Your task to perform on an android device: Show me productivity apps on the Play Store Image 0: 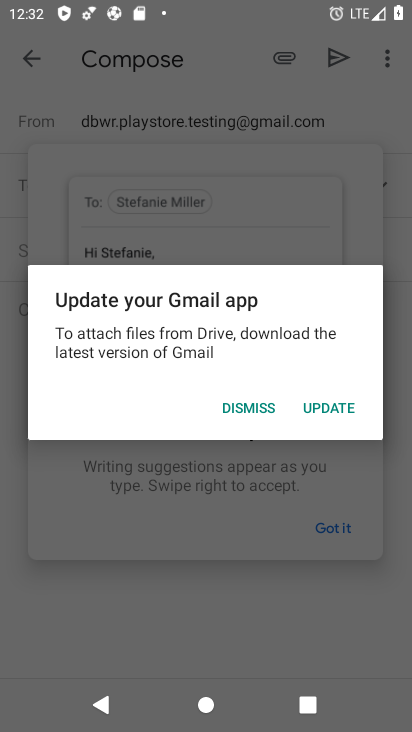
Step 0: press home button
Your task to perform on an android device: Show me productivity apps on the Play Store Image 1: 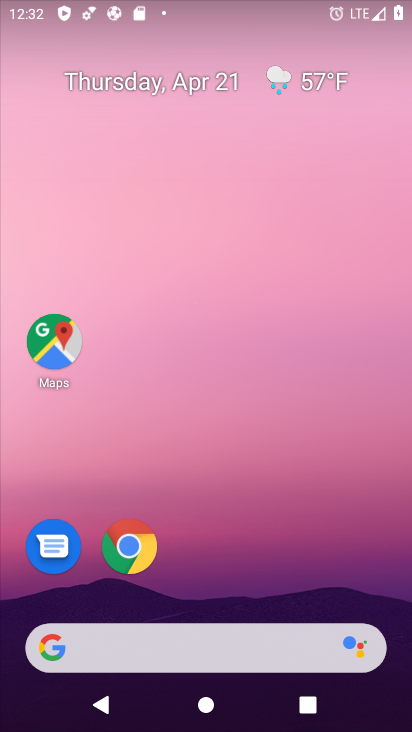
Step 1: drag from (296, 529) to (265, 66)
Your task to perform on an android device: Show me productivity apps on the Play Store Image 2: 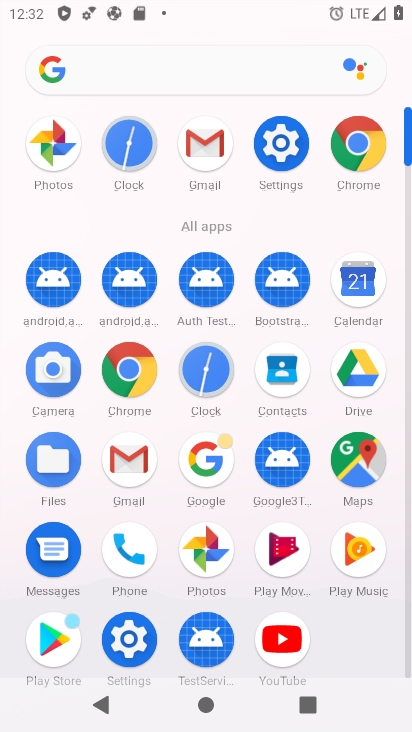
Step 2: click (58, 624)
Your task to perform on an android device: Show me productivity apps on the Play Store Image 3: 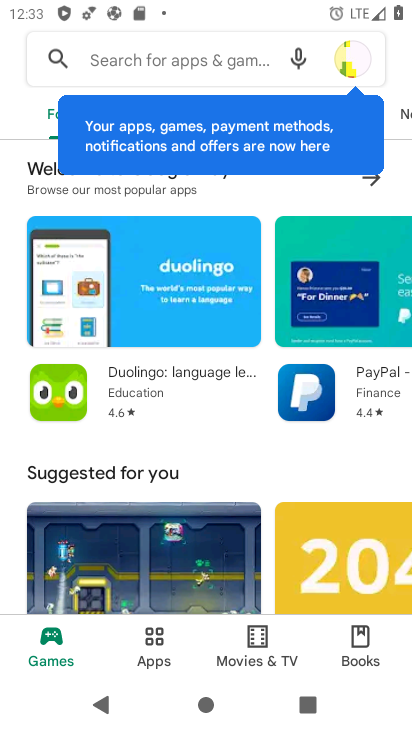
Step 3: click (166, 640)
Your task to perform on an android device: Show me productivity apps on the Play Store Image 4: 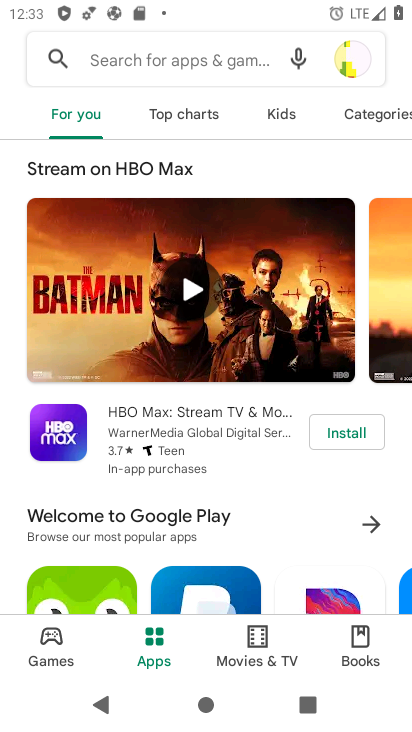
Step 4: drag from (374, 122) to (50, 145)
Your task to perform on an android device: Show me productivity apps on the Play Store Image 5: 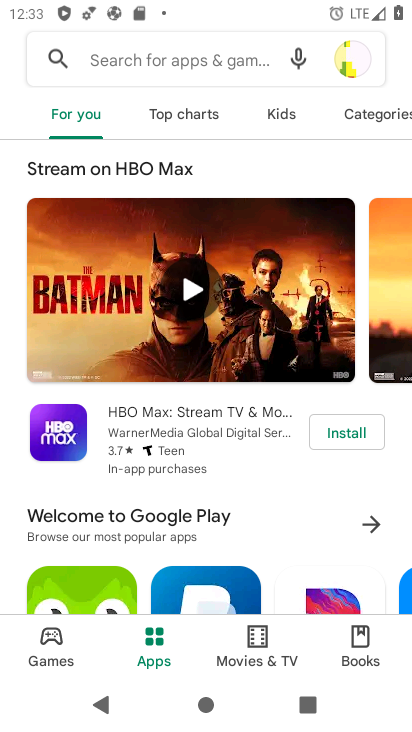
Step 5: click (360, 113)
Your task to perform on an android device: Show me productivity apps on the Play Store Image 6: 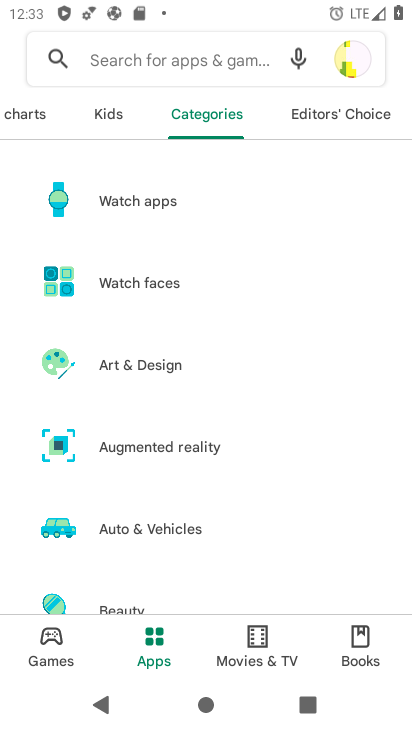
Step 6: drag from (229, 590) to (202, 152)
Your task to perform on an android device: Show me productivity apps on the Play Store Image 7: 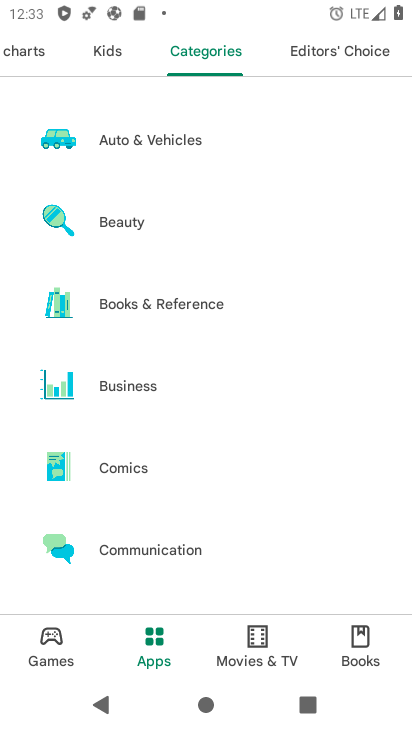
Step 7: drag from (173, 359) to (240, 95)
Your task to perform on an android device: Show me productivity apps on the Play Store Image 8: 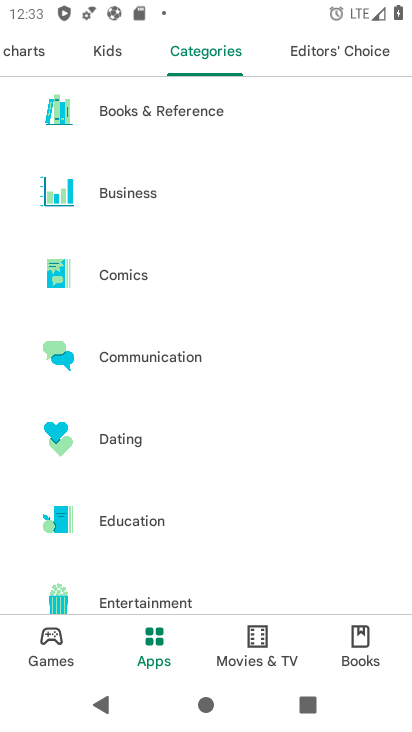
Step 8: drag from (197, 580) to (177, 51)
Your task to perform on an android device: Show me productivity apps on the Play Store Image 9: 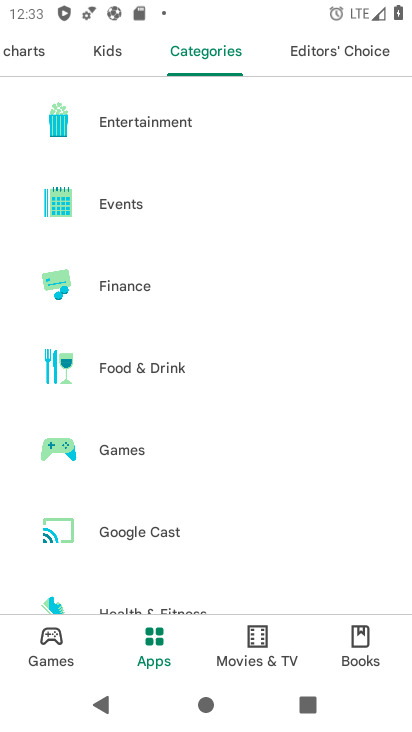
Step 9: drag from (217, 570) to (213, 56)
Your task to perform on an android device: Show me productivity apps on the Play Store Image 10: 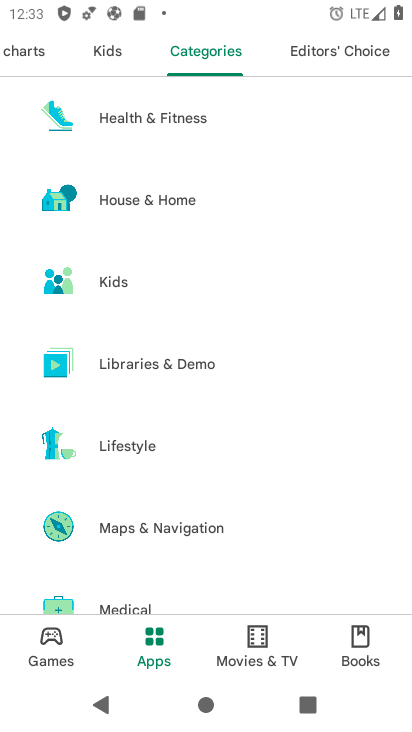
Step 10: drag from (196, 557) to (249, 89)
Your task to perform on an android device: Show me productivity apps on the Play Store Image 11: 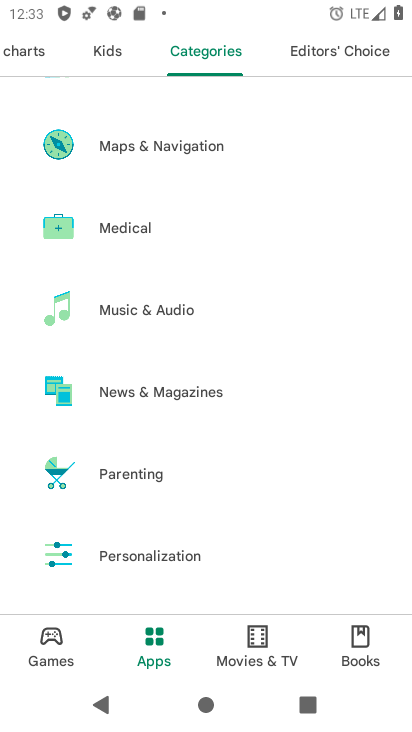
Step 11: drag from (195, 556) to (193, 192)
Your task to perform on an android device: Show me productivity apps on the Play Store Image 12: 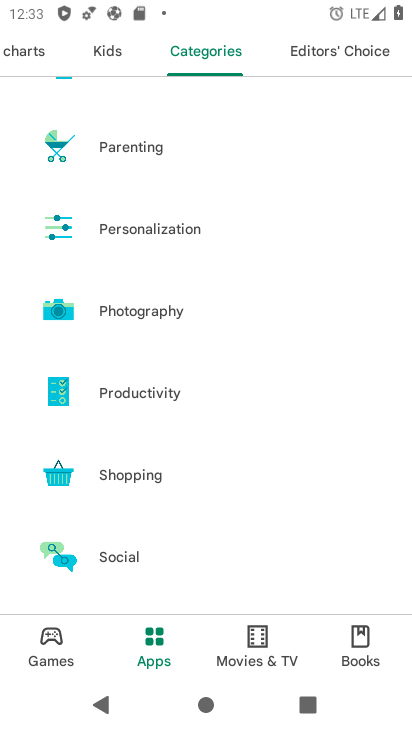
Step 12: click (143, 394)
Your task to perform on an android device: Show me productivity apps on the Play Store Image 13: 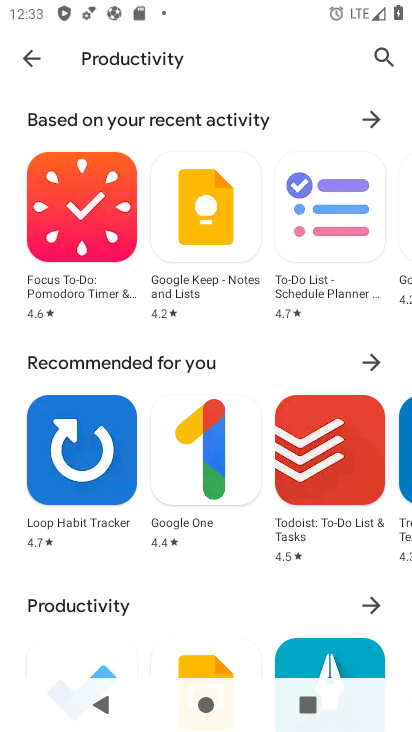
Step 13: task complete